Your task to perform on an android device: allow notifications from all sites in the chrome app Image 0: 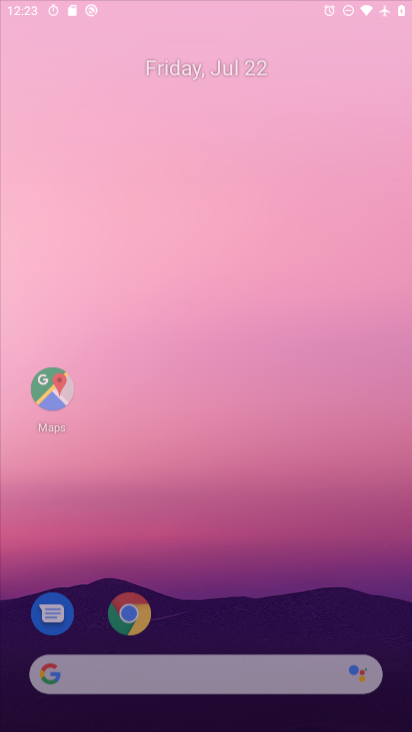
Step 0: press home button
Your task to perform on an android device: allow notifications from all sites in the chrome app Image 1: 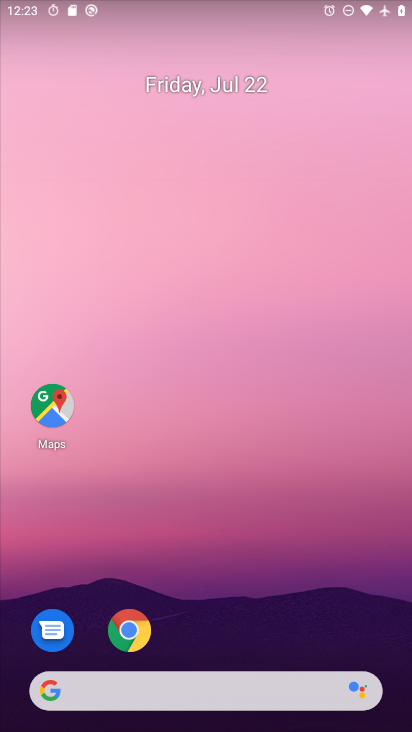
Step 1: drag from (214, 641) to (214, 92)
Your task to perform on an android device: allow notifications from all sites in the chrome app Image 2: 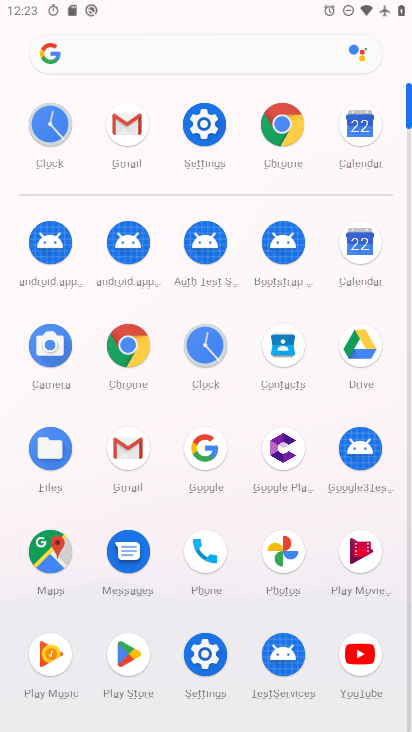
Step 2: click (279, 129)
Your task to perform on an android device: allow notifications from all sites in the chrome app Image 3: 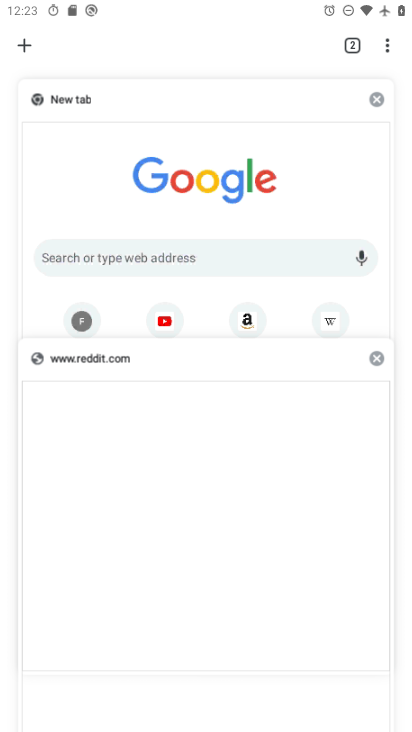
Step 3: drag from (385, 51) to (208, 177)
Your task to perform on an android device: allow notifications from all sites in the chrome app Image 4: 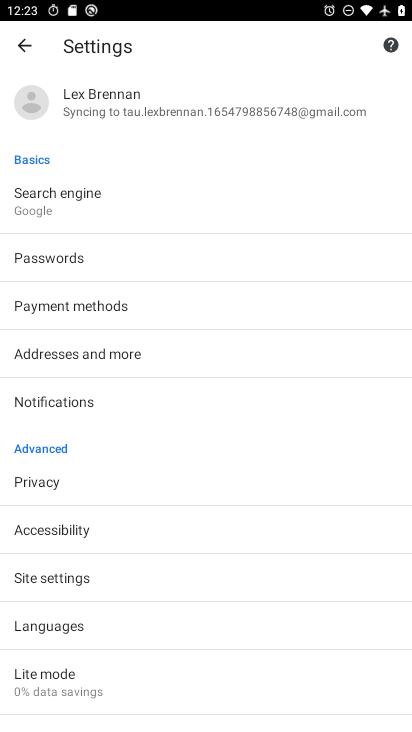
Step 4: click (69, 579)
Your task to perform on an android device: allow notifications from all sites in the chrome app Image 5: 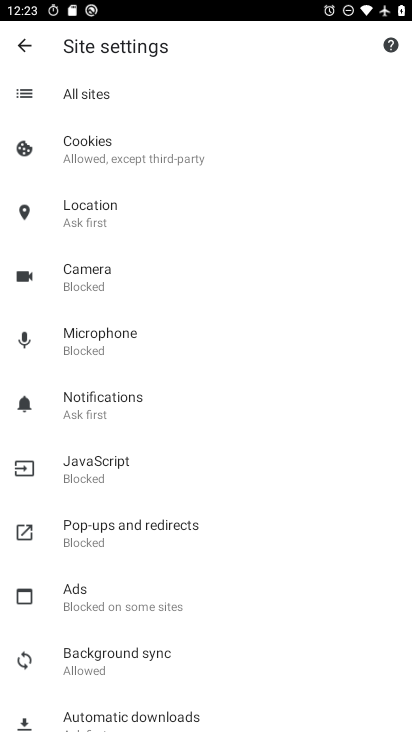
Step 5: click (87, 401)
Your task to perform on an android device: allow notifications from all sites in the chrome app Image 6: 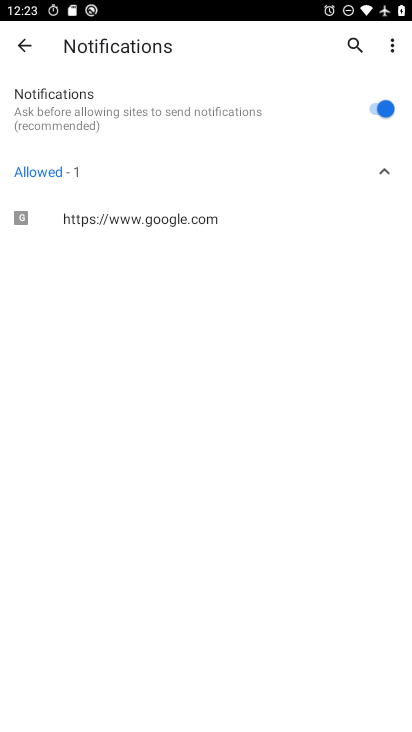
Step 6: task complete